Your task to perform on an android device: uninstall "Grab" Image 0: 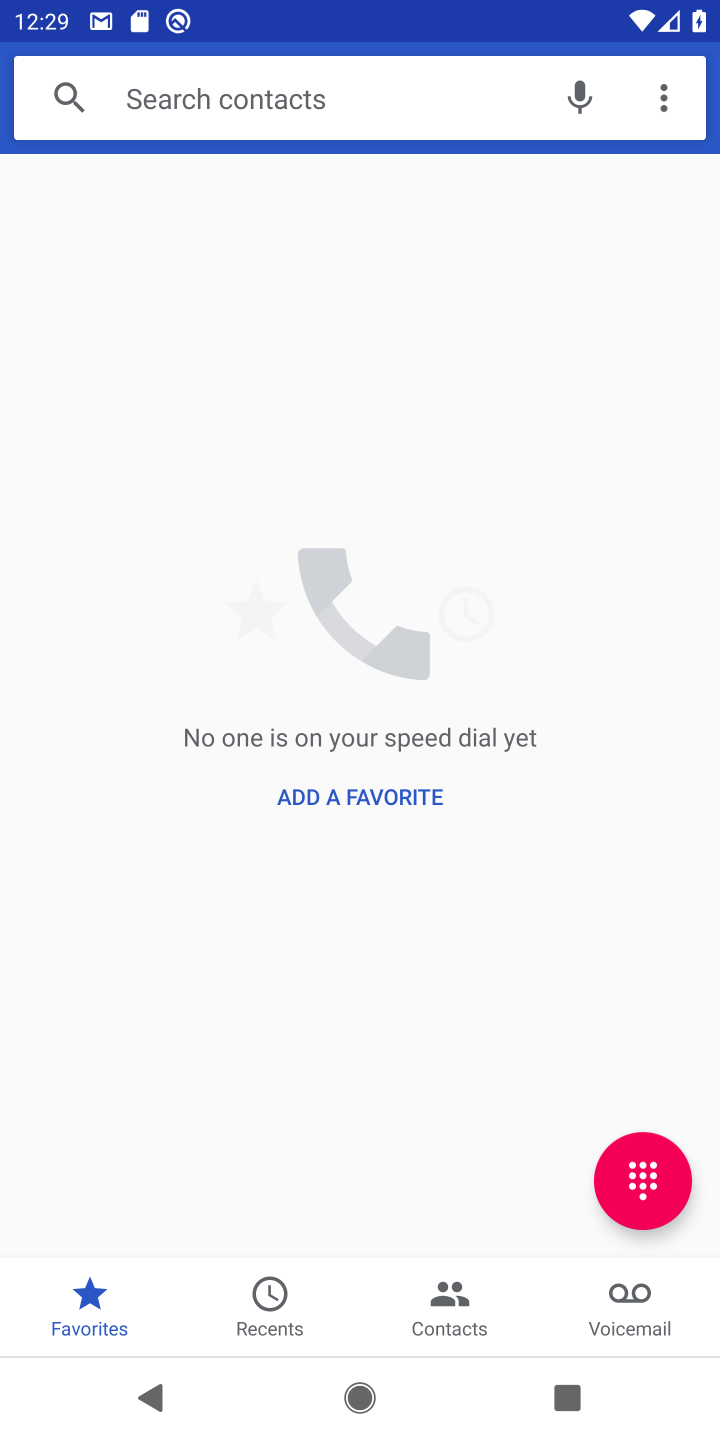
Step 0: press home button
Your task to perform on an android device: uninstall "Grab" Image 1: 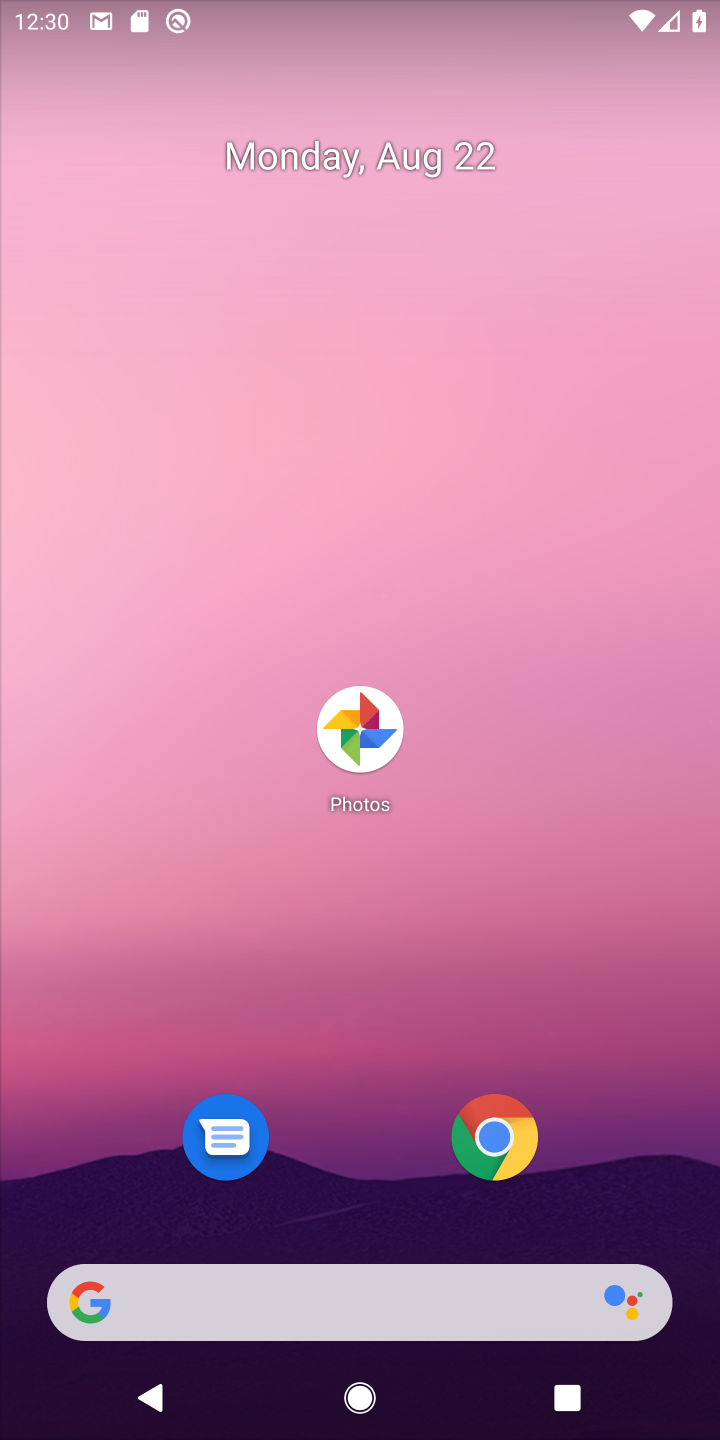
Step 1: drag from (632, 1210) to (568, 157)
Your task to perform on an android device: uninstall "Grab" Image 2: 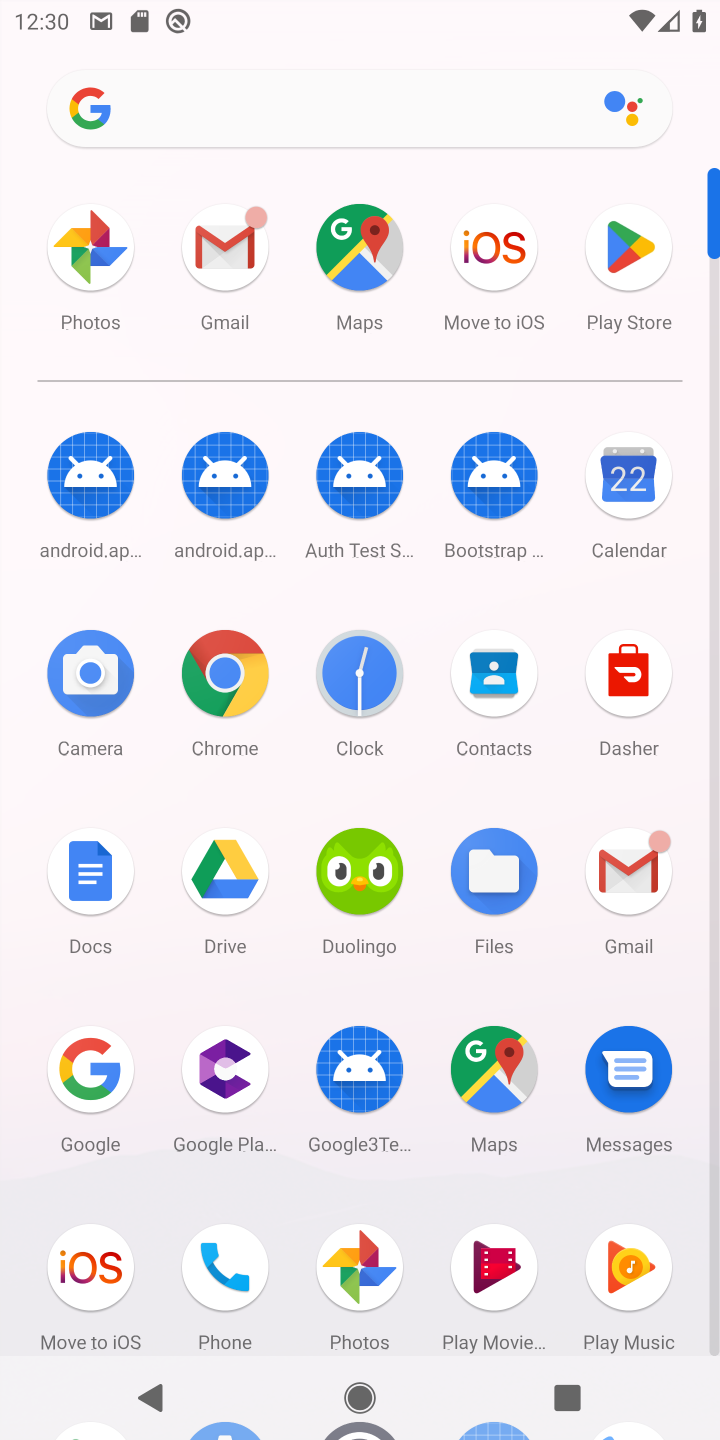
Step 2: drag from (279, 1213) to (293, 487)
Your task to perform on an android device: uninstall "Grab" Image 3: 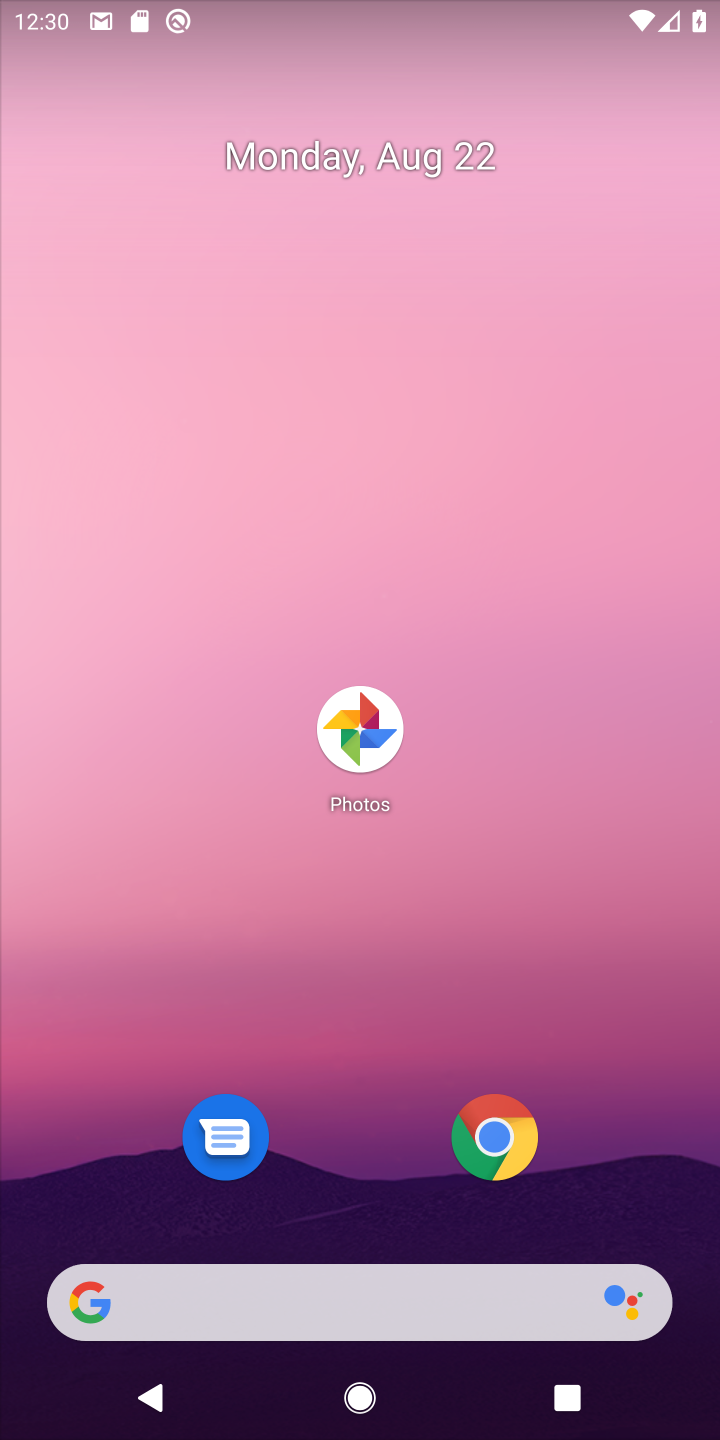
Step 3: drag from (412, 899) to (394, 49)
Your task to perform on an android device: uninstall "Grab" Image 4: 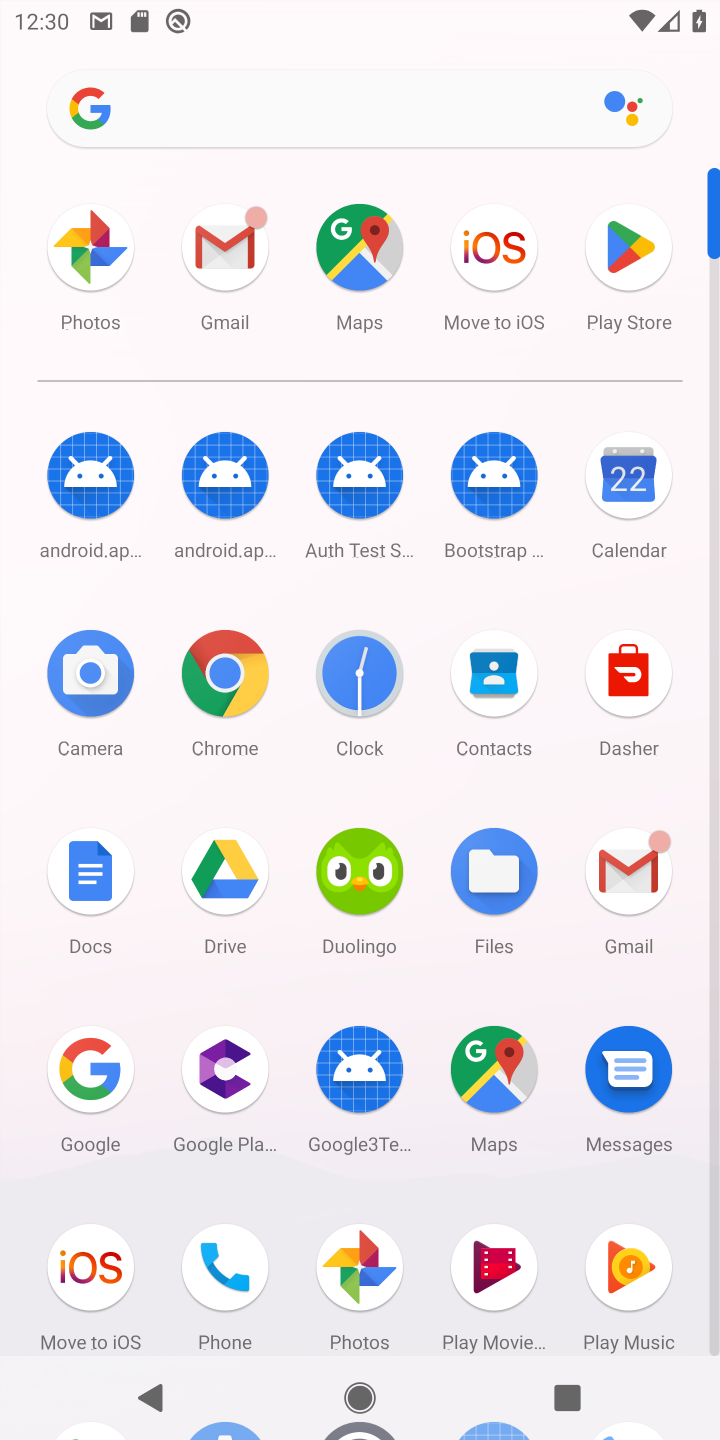
Step 4: drag from (567, 1180) to (554, 330)
Your task to perform on an android device: uninstall "Grab" Image 5: 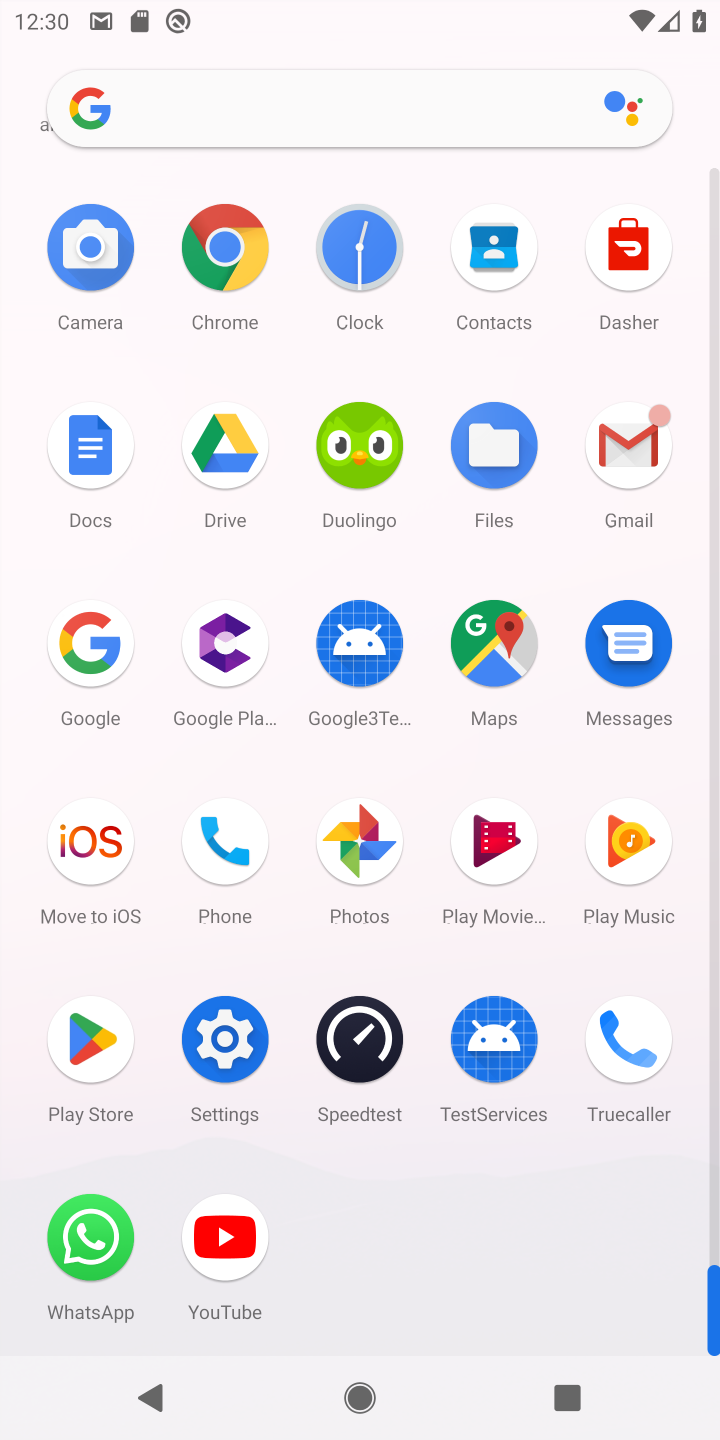
Step 5: click (88, 1035)
Your task to perform on an android device: uninstall "Grab" Image 6: 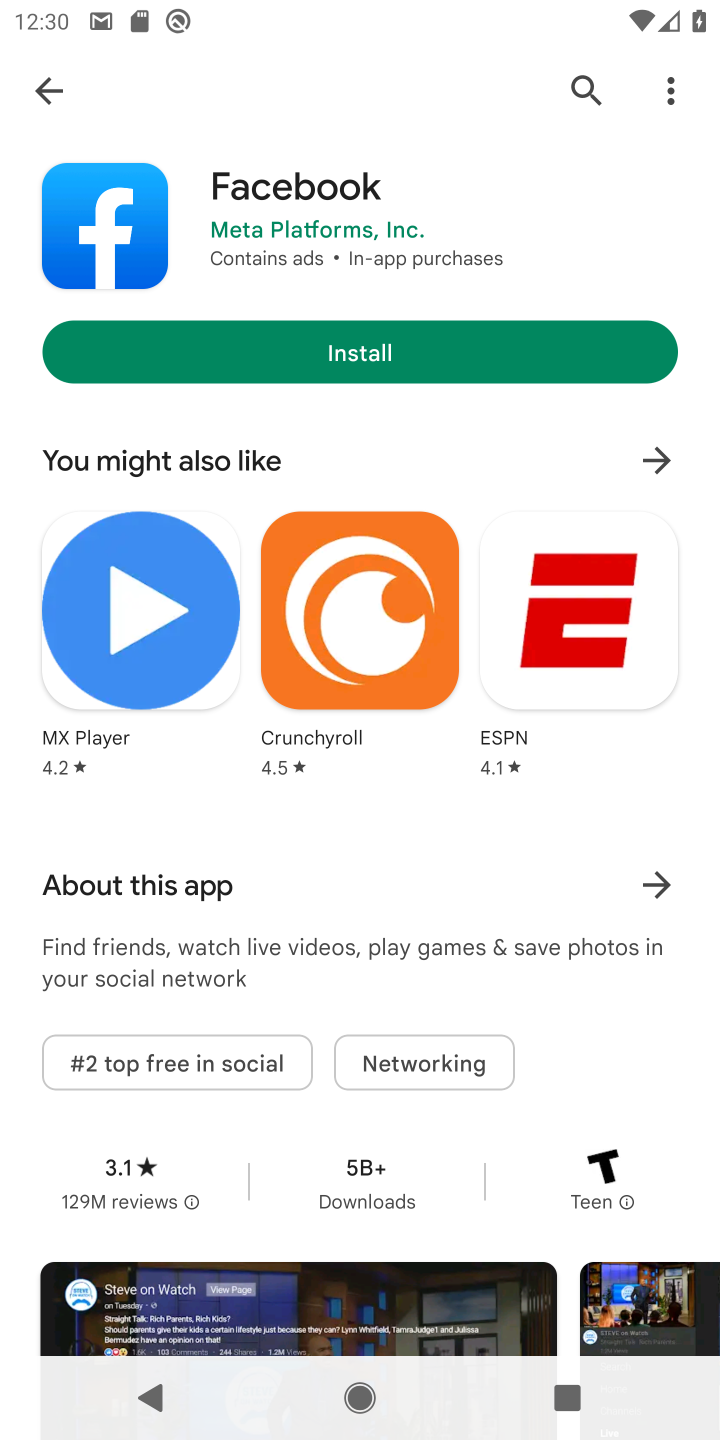
Step 6: click (579, 92)
Your task to perform on an android device: uninstall "Grab" Image 7: 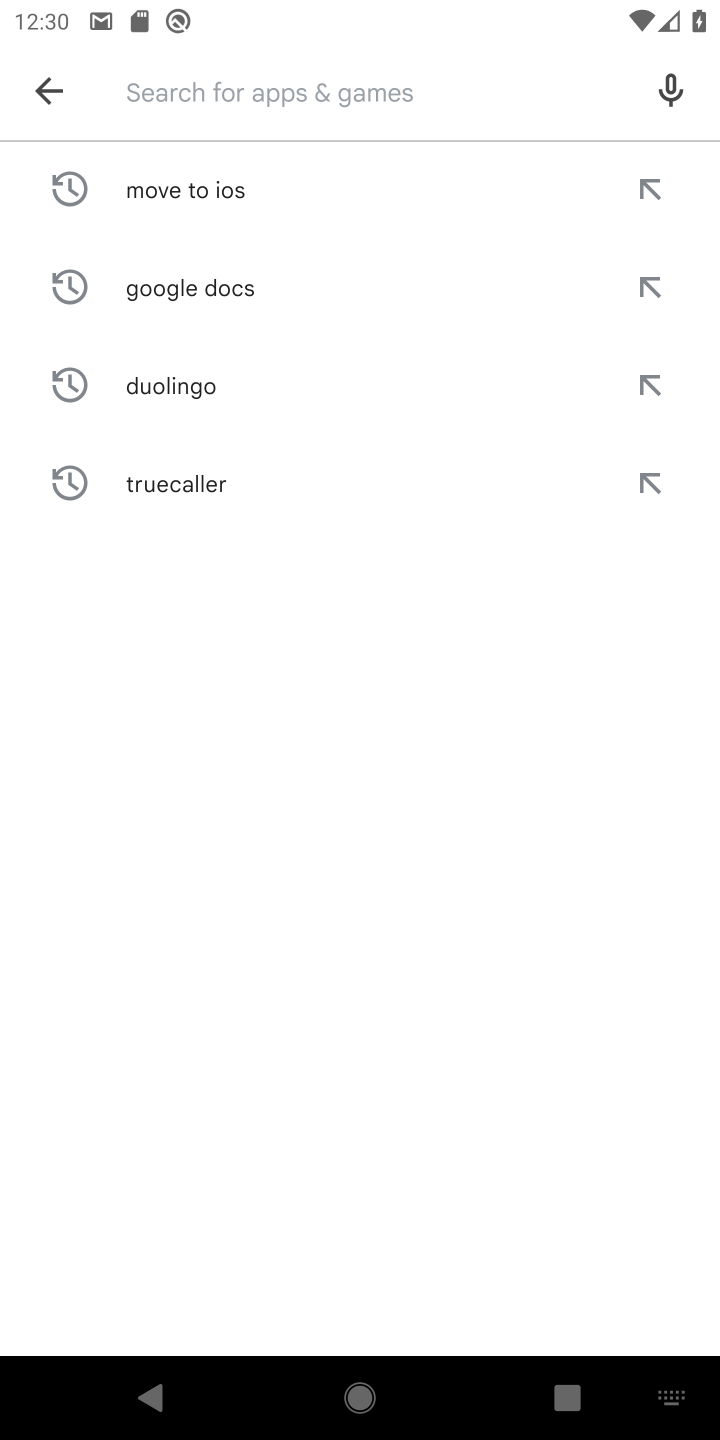
Step 7: type "Grab"
Your task to perform on an android device: uninstall "Grab" Image 8: 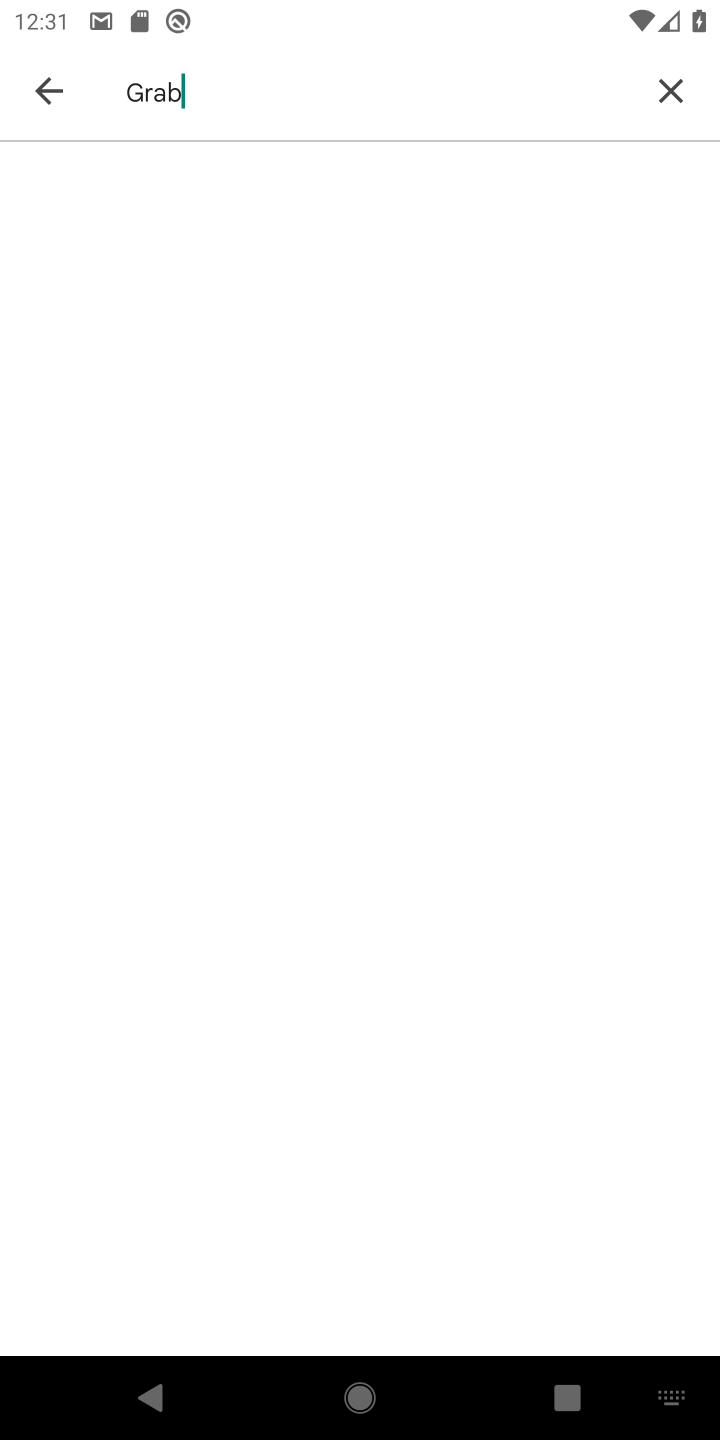
Step 8: task complete